Your task to perform on an android device: What's on my calendar tomorrow? Image 0: 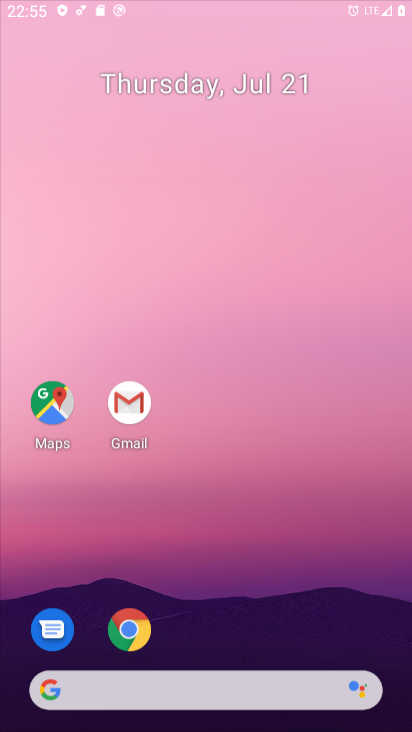
Step 0: click (233, 288)
Your task to perform on an android device: What's on my calendar tomorrow? Image 1: 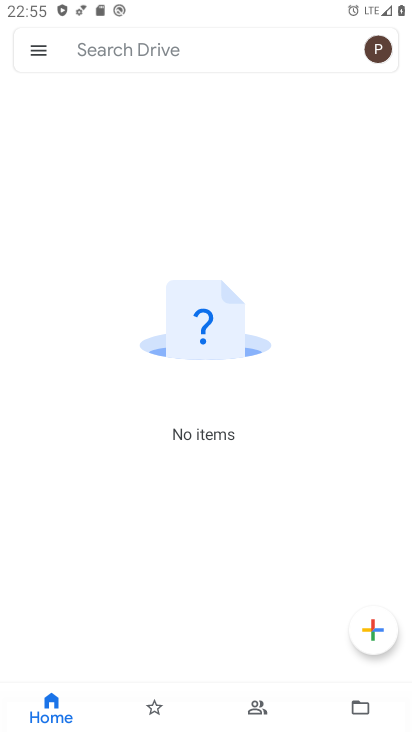
Step 1: press back button
Your task to perform on an android device: What's on my calendar tomorrow? Image 2: 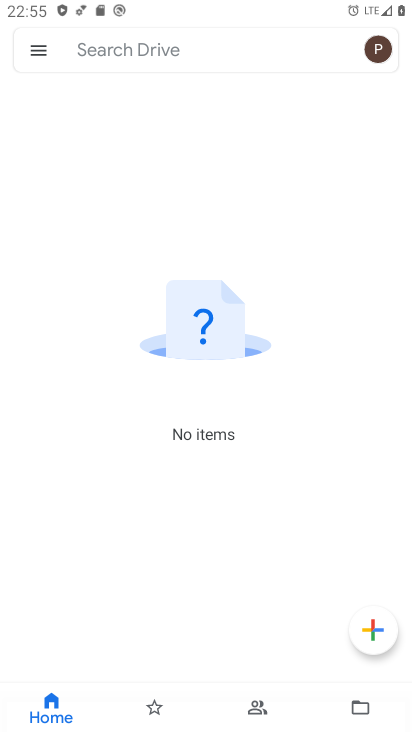
Step 2: press back button
Your task to perform on an android device: What's on my calendar tomorrow? Image 3: 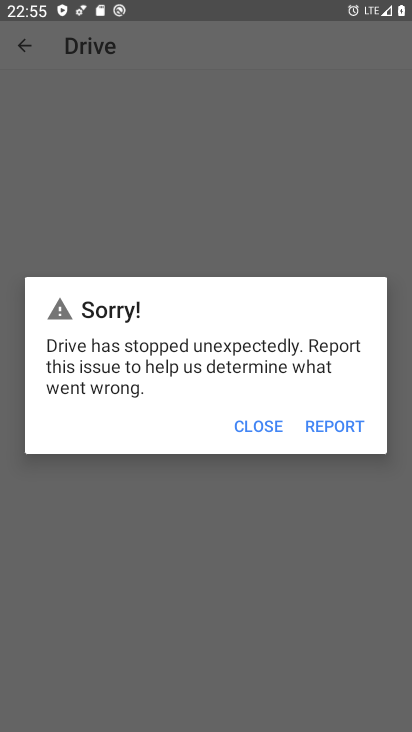
Step 3: click (266, 423)
Your task to perform on an android device: What's on my calendar tomorrow? Image 4: 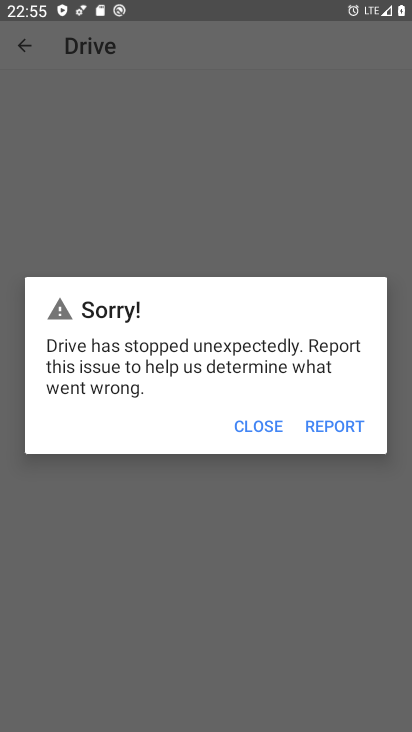
Step 4: click (266, 424)
Your task to perform on an android device: What's on my calendar tomorrow? Image 5: 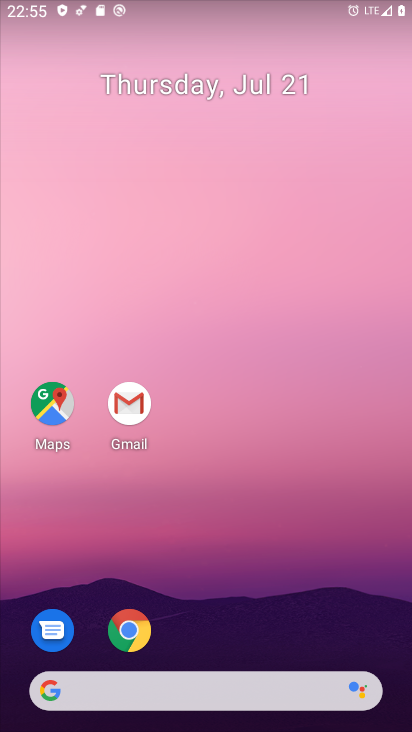
Step 5: drag from (207, 606) to (219, 86)
Your task to perform on an android device: What's on my calendar tomorrow? Image 6: 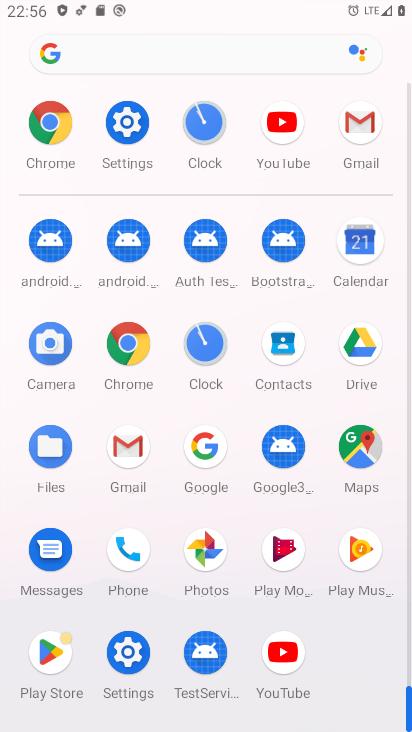
Step 6: click (364, 238)
Your task to perform on an android device: What's on my calendar tomorrow? Image 7: 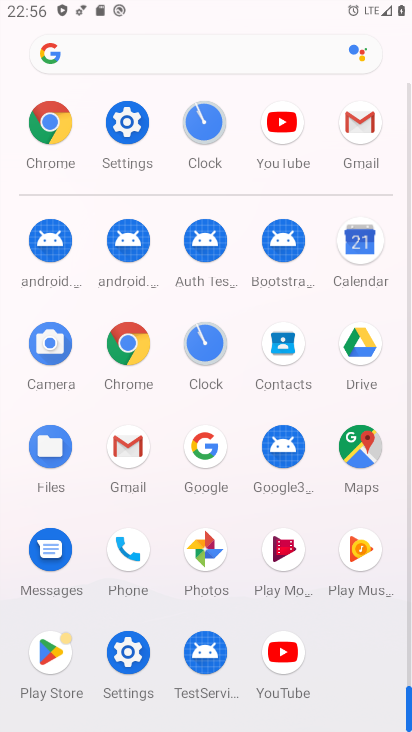
Step 7: click (364, 233)
Your task to perform on an android device: What's on my calendar tomorrow? Image 8: 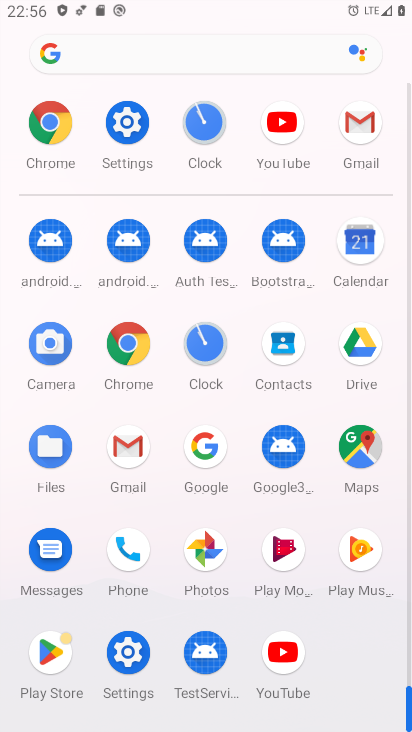
Step 8: click (359, 230)
Your task to perform on an android device: What's on my calendar tomorrow? Image 9: 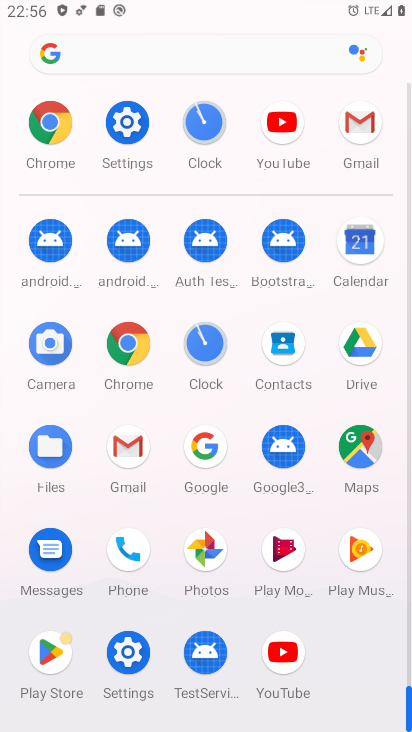
Step 9: click (352, 229)
Your task to perform on an android device: What's on my calendar tomorrow? Image 10: 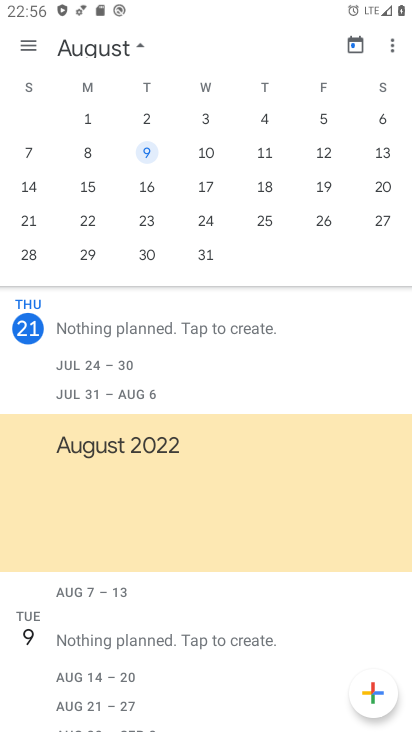
Step 10: drag from (351, 235) to (391, 191)
Your task to perform on an android device: What's on my calendar tomorrow? Image 11: 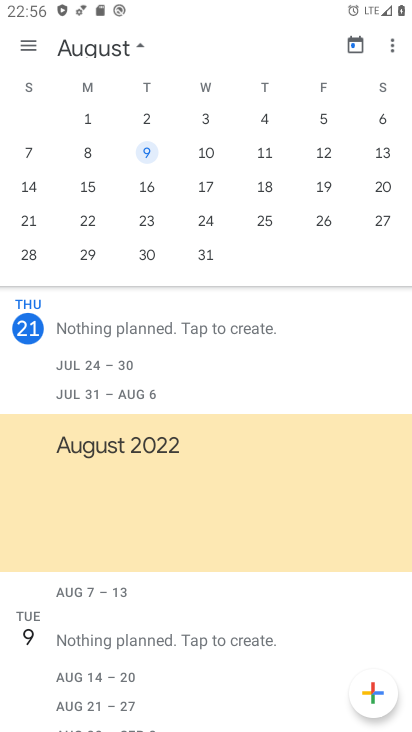
Step 11: drag from (48, 191) to (406, 219)
Your task to perform on an android device: What's on my calendar tomorrow? Image 12: 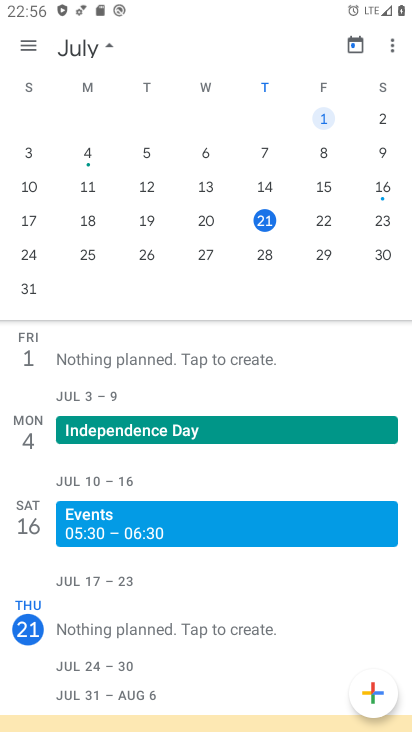
Step 12: click (385, 218)
Your task to perform on an android device: What's on my calendar tomorrow? Image 13: 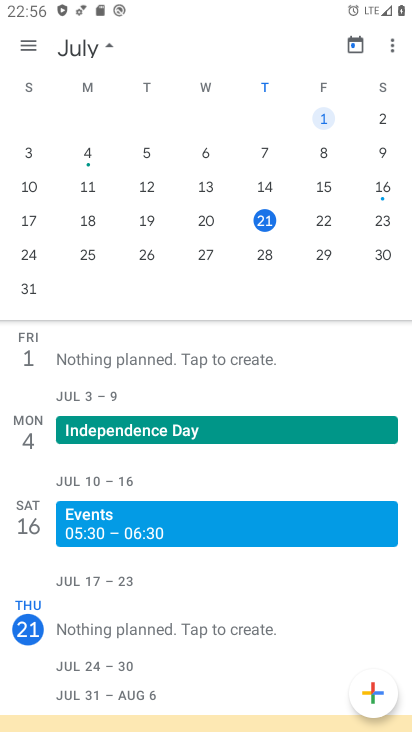
Step 13: click (385, 218)
Your task to perform on an android device: What's on my calendar tomorrow? Image 14: 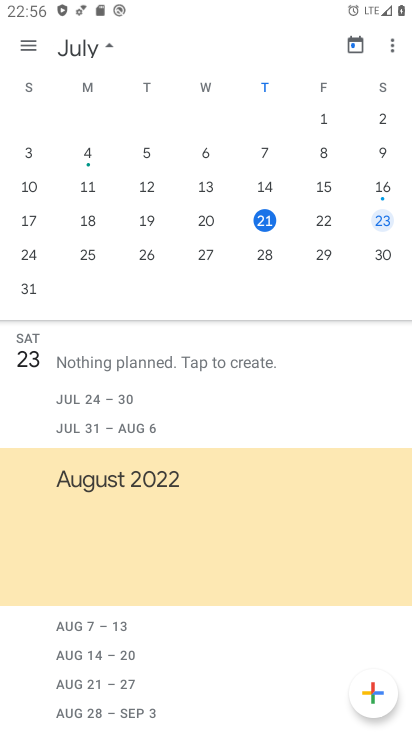
Step 14: click (385, 218)
Your task to perform on an android device: What's on my calendar tomorrow? Image 15: 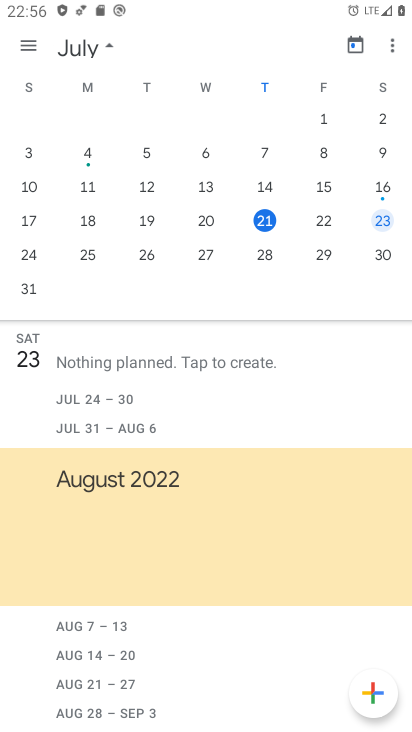
Step 15: click (385, 218)
Your task to perform on an android device: What's on my calendar tomorrow? Image 16: 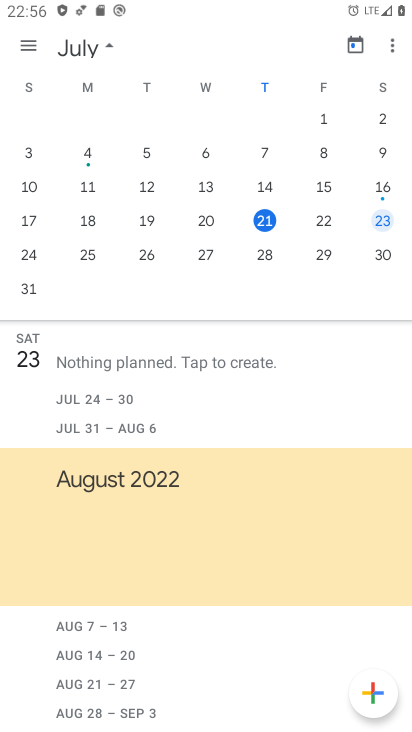
Step 16: click (385, 218)
Your task to perform on an android device: What's on my calendar tomorrow? Image 17: 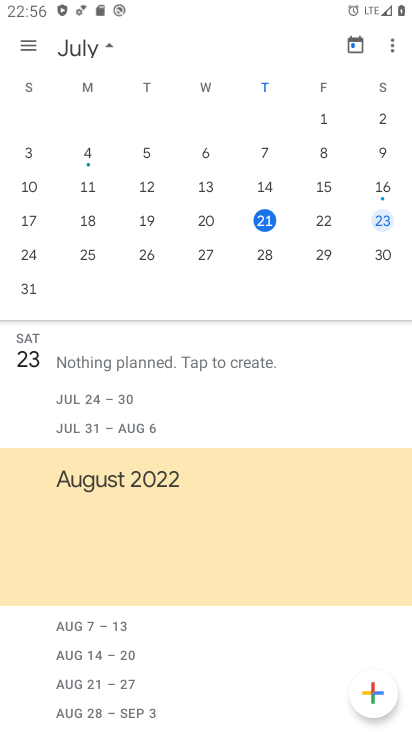
Step 17: click (385, 218)
Your task to perform on an android device: What's on my calendar tomorrow? Image 18: 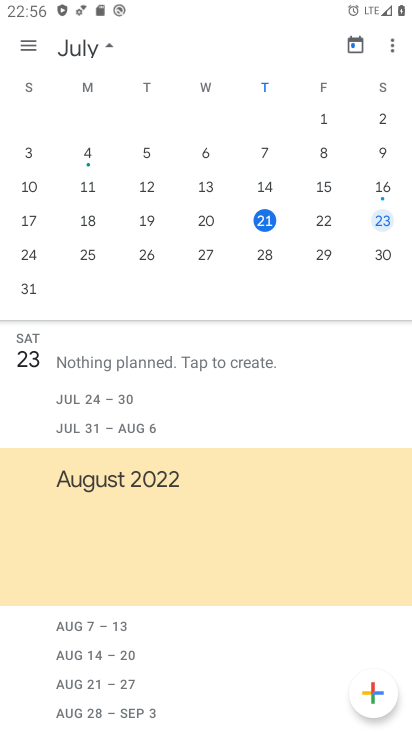
Step 18: task complete